Your task to perform on an android device: Do I have any events this weekend? Image 0: 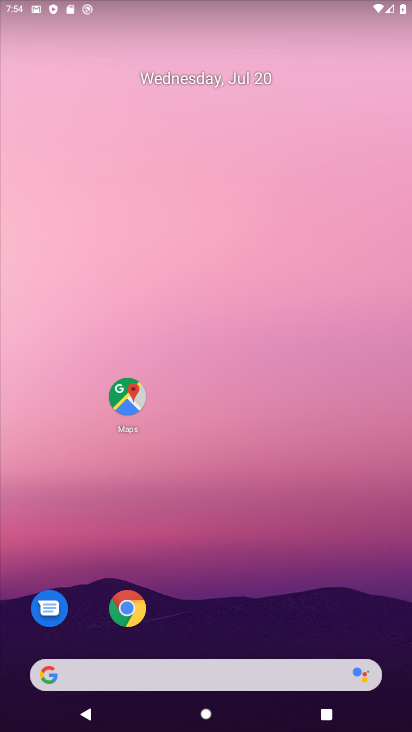
Step 0: drag from (43, 572) to (226, 155)
Your task to perform on an android device: Do I have any events this weekend? Image 1: 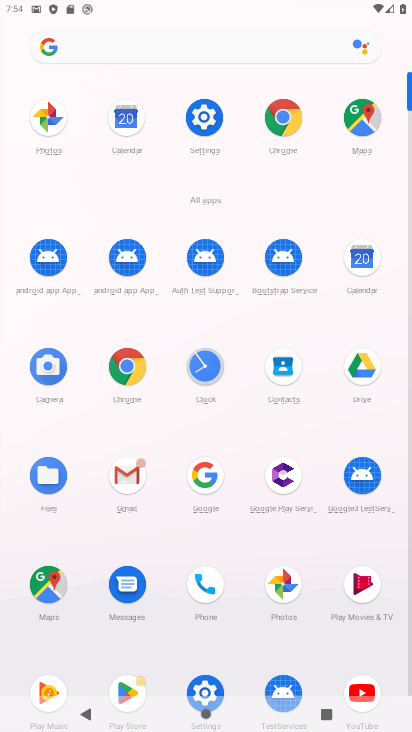
Step 1: click (350, 260)
Your task to perform on an android device: Do I have any events this weekend? Image 2: 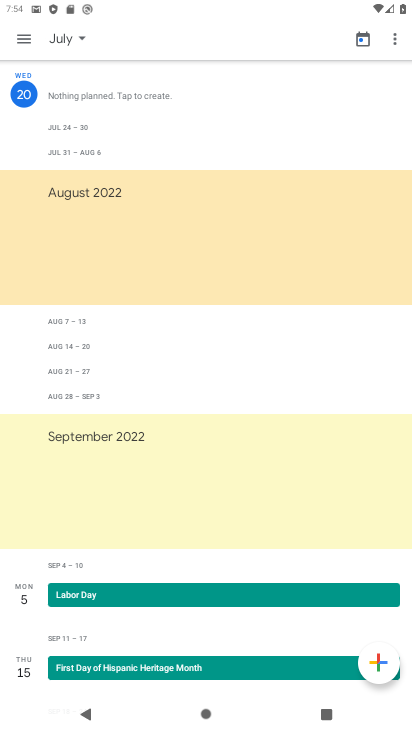
Step 2: click (63, 37)
Your task to perform on an android device: Do I have any events this weekend? Image 3: 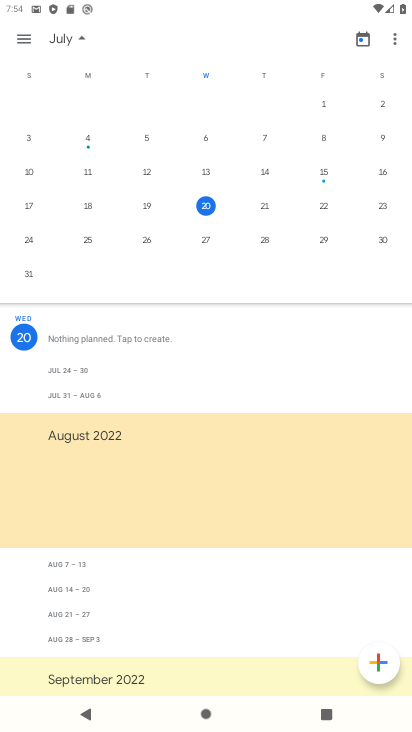
Step 3: click (387, 212)
Your task to perform on an android device: Do I have any events this weekend? Image 4: 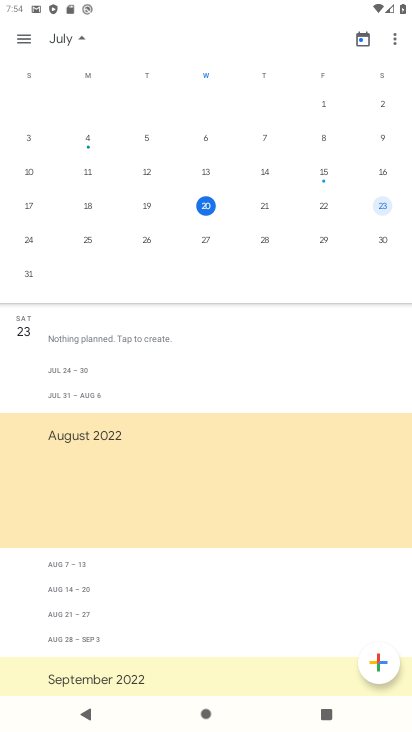
Step 4: click (387, 200)
Your task to perform on an android device: Do I have any events this weekend? Image 5: 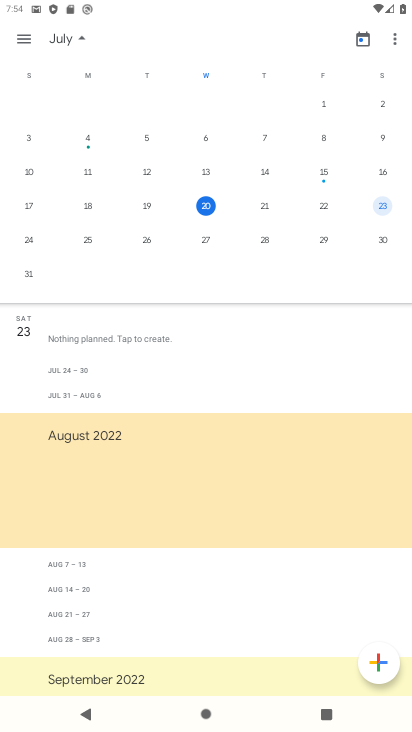
Step 5: click (31, 249)
Your task to perform on an android device: Do I have any events this weekend? Image 6: 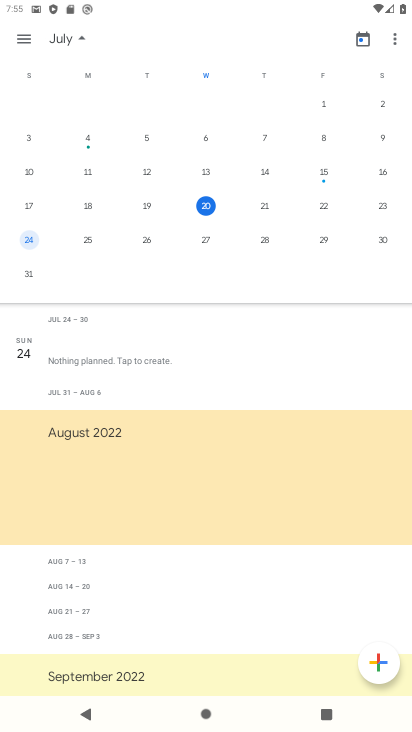
Step 6: task complete